Your task to perform on an android device: Search for Italian restaurants on Maps Image 0: 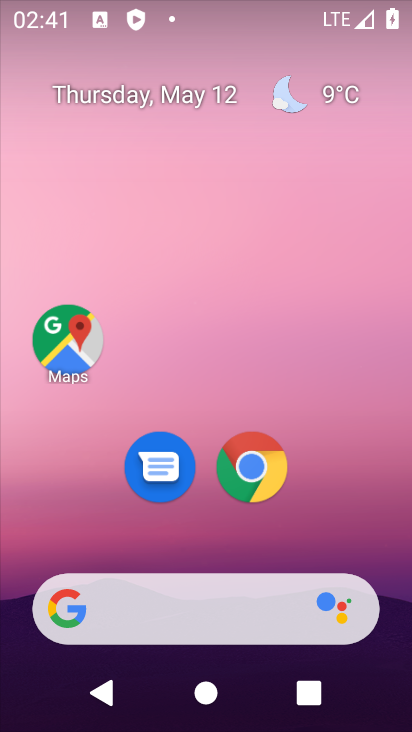
Step 0: drag from (363, 547) to (353, 218)
Your task to perform on an android device: Search for Italian restaurants on Maps Image 1: 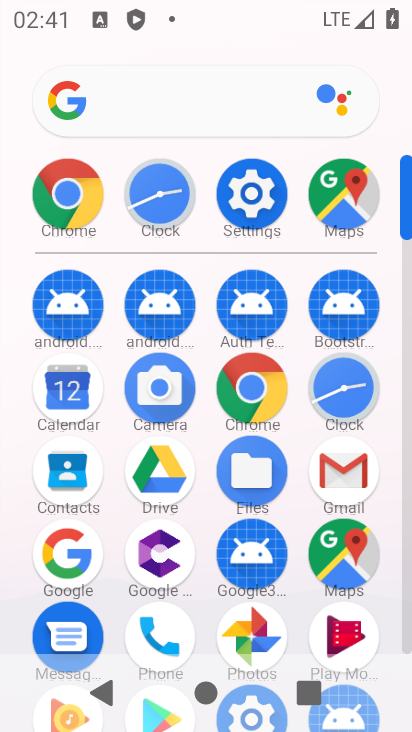
Step 1: click (354, 551)
Your task to perform on an android device: Search for Italian restaurants on Maps Image 2: 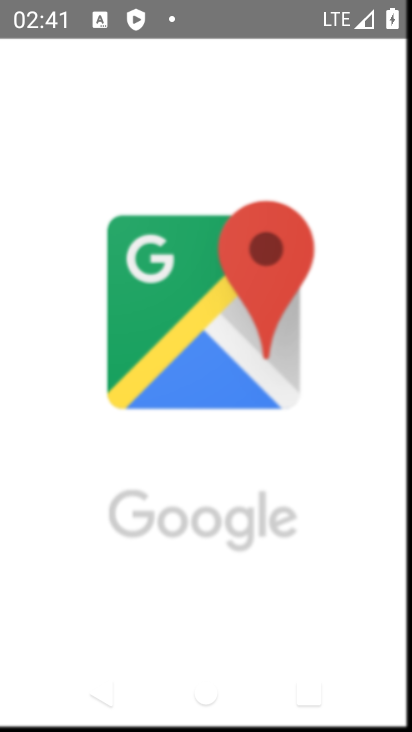
Step 2: task complete